Your task to perform on an android device: move an email to a new category in the gmail app Image 0: 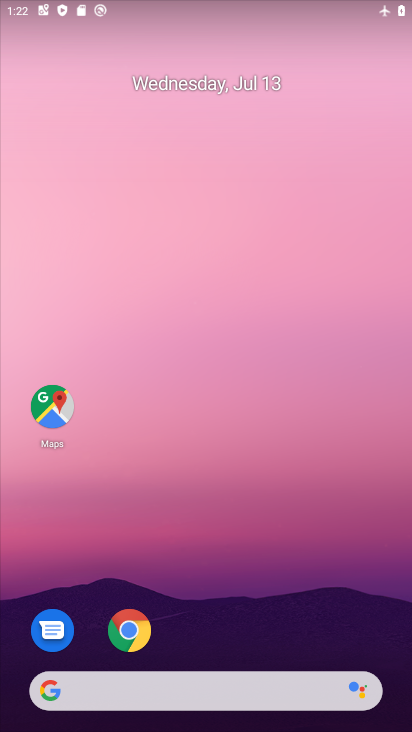
Step 0: drag from (307, 629) to (332, 102)
Your task to perform on an android device: move an email to a new category in the gmail app Image 1: 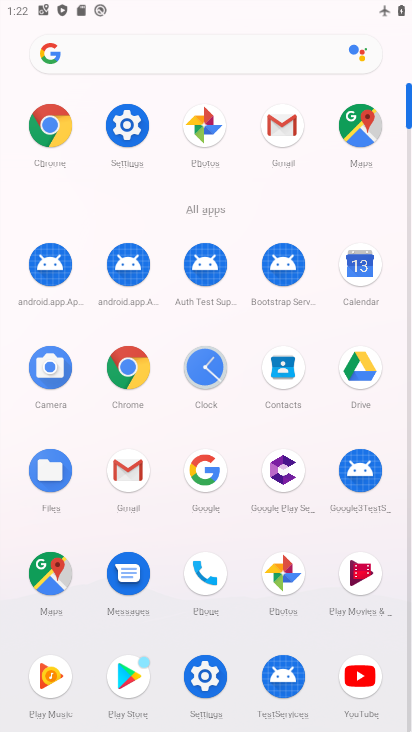
Step 1: click (135, 470)
Your task to perform on an android device: move an email to a new category in the gmail app Image 2: 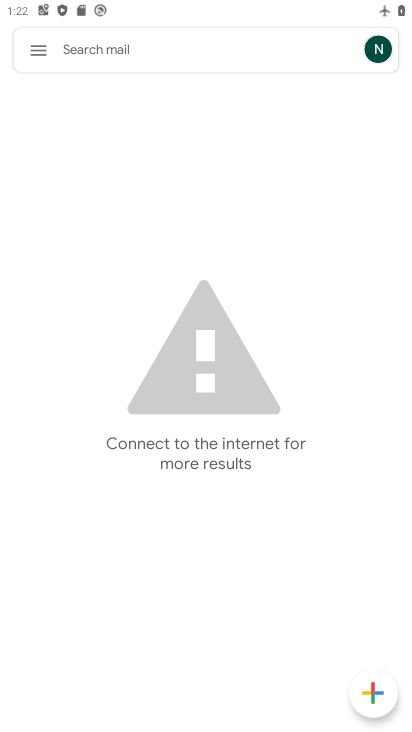
Step 2: click (41, 45)
Your task to perform on an android device: move an email to a new category in the gmail app Image 3: 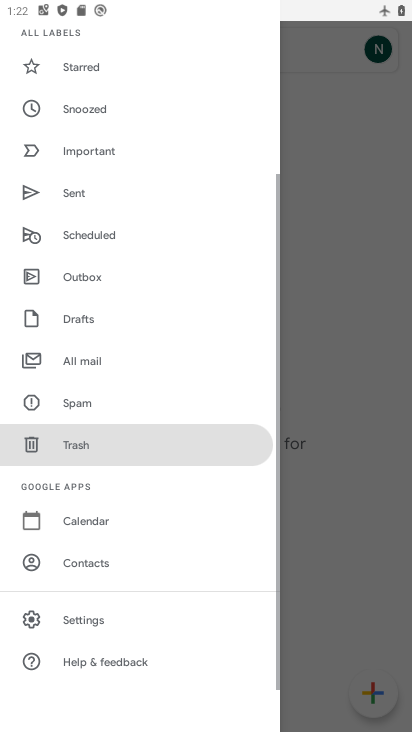
Step 3: drag from (209, 191) to (202, 459)
Your task to perform on an android device: move an email to a new category in the gmail app Image 4: 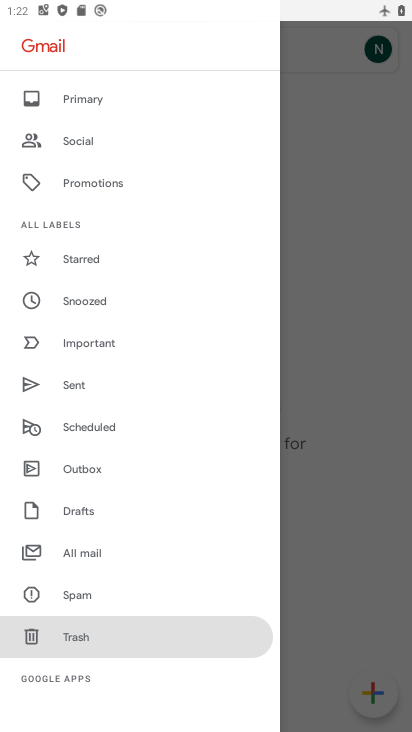
Step 4: drag from (188, 221) to (177, 451)
Your task to perform on an android device: move an email to a new category in the gmail app Image 5: 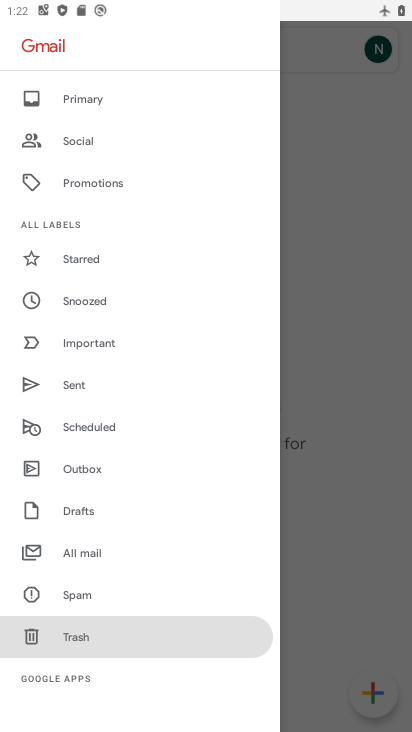
Step 5: drag from (187, 166) to (187, 363)
Your task to perform on an android device: move an email to a new category in the gmail app Image 6: 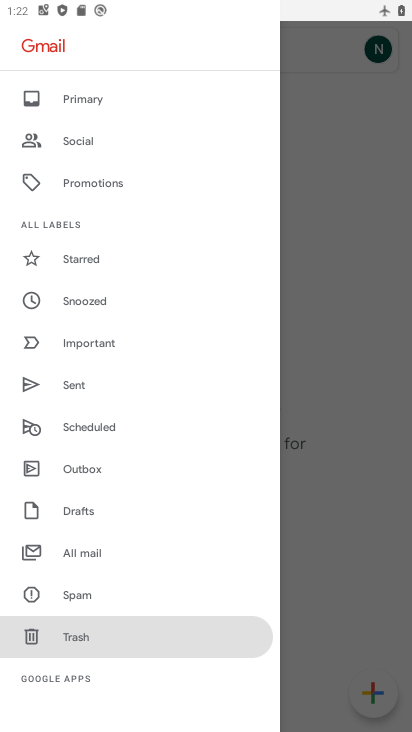
Step 6: click (102, 94)
Your task to perform on an android device: move an email to a new category in the gmail app Image 7: 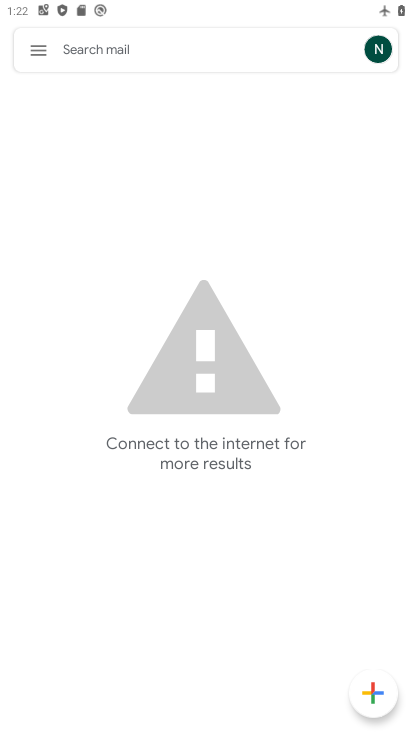
Step 7: task complete